Your task to perform on an android device: Open Yahoo.com Image 0: 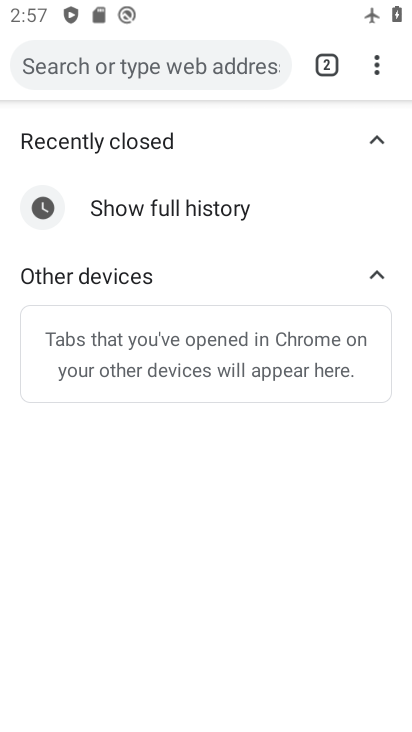
Step 0: press home button
Your task to perform on an android device: Open Yahoo.com Image 1: 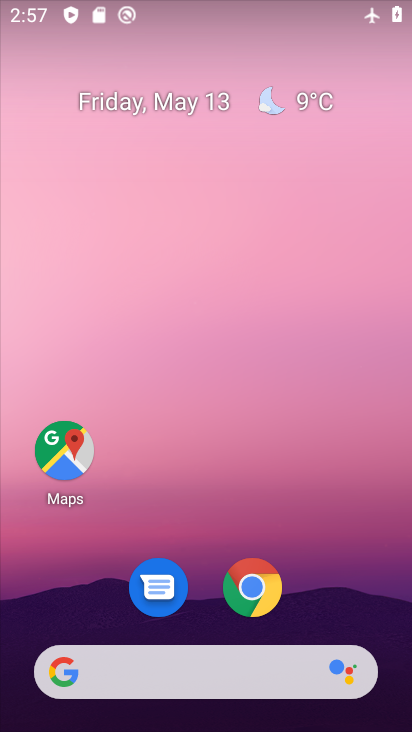
Step 1: click (266, 609)
Your task to perform on an android device: Open Yahoo.com Image 2: 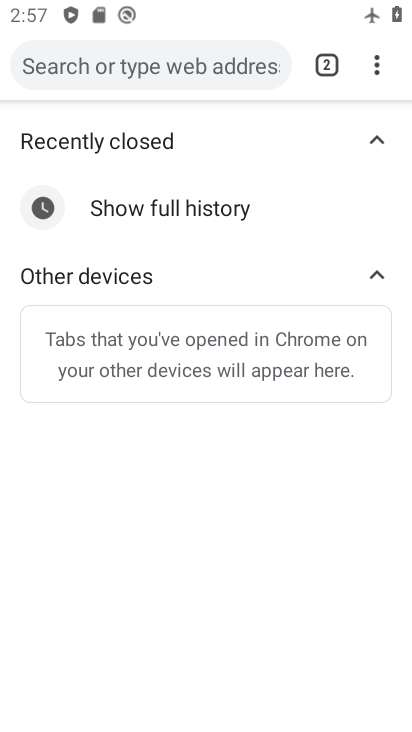
Step 2: press back button
Your task to perform on an android device: Open Yahoo.com Image 3: 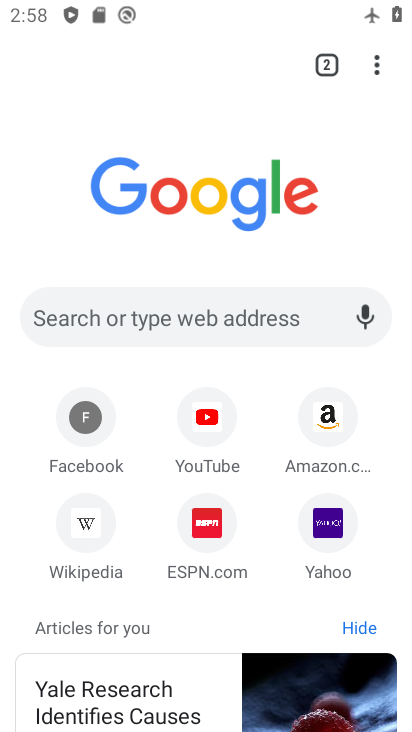
Step 3: click (345, 532)
Your task to perform on an android device: Open Yahoo.com Image 4: 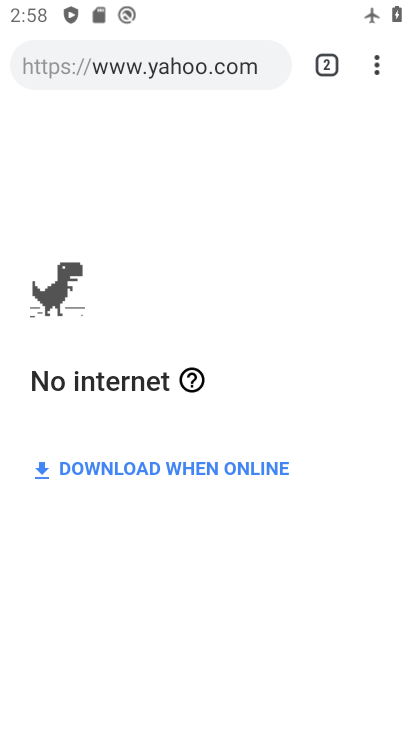
Step 4: task complete